Your task to perform on an android device: Open Youtube and go to the subscriptions tab Image 0: 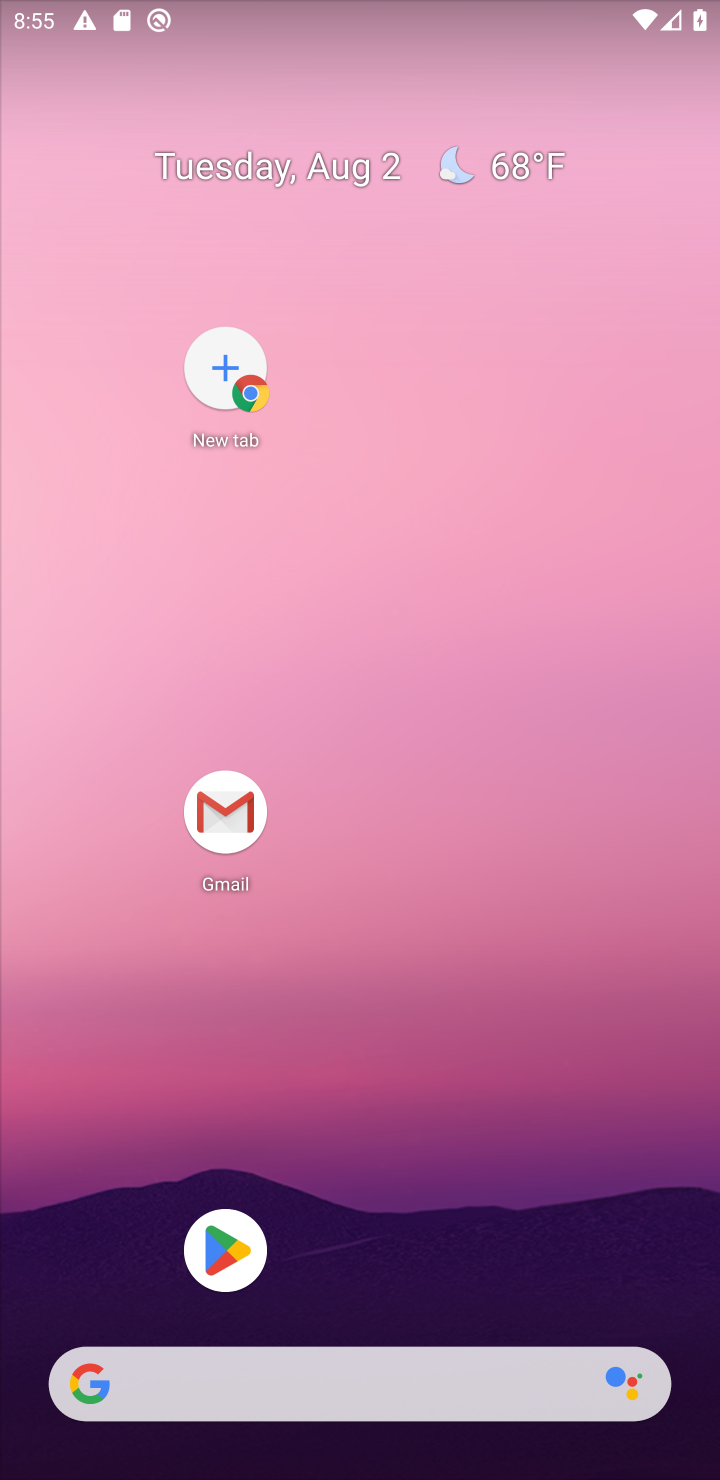
Step 0: drag from (255, 1302) to (286, 570)
Your task to perform on an android device: Open Youtube and go to the subscriptions tab Image 1: 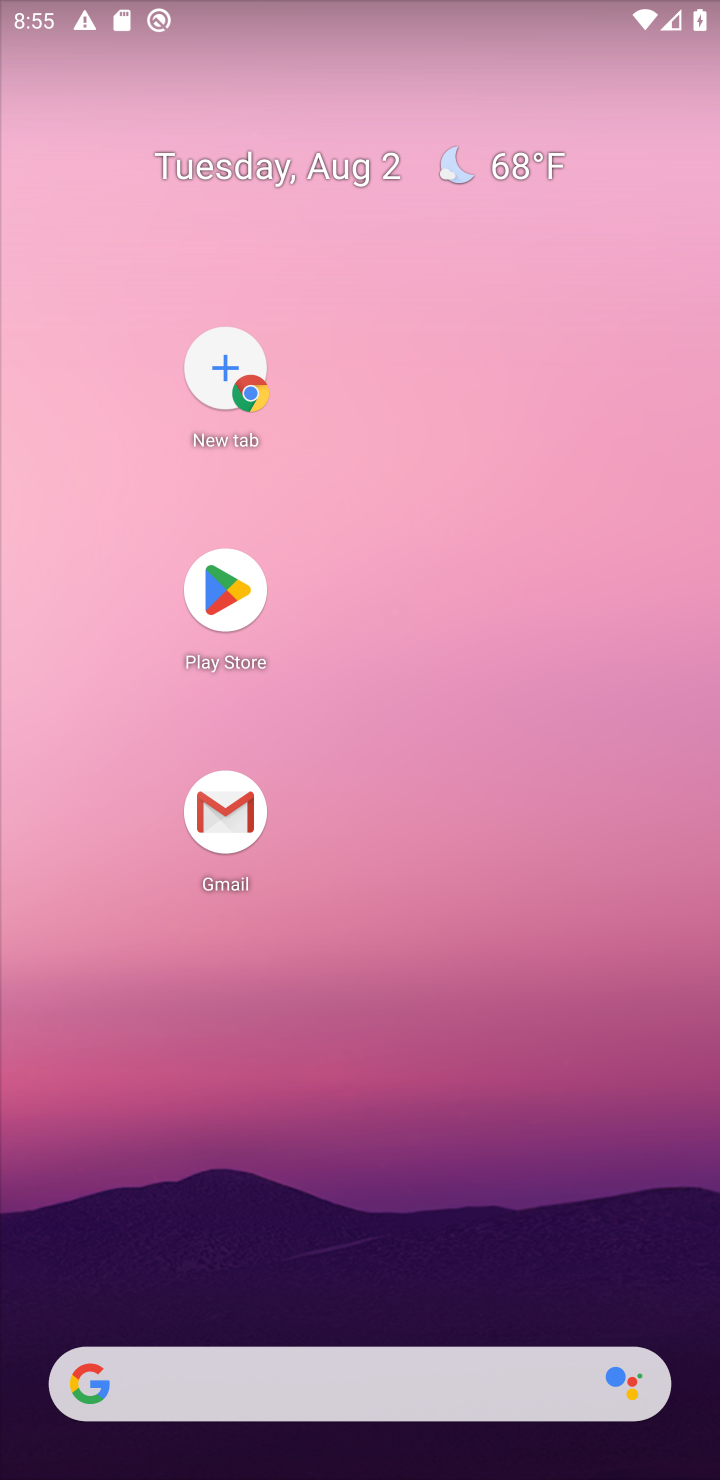
Step 1: drag from (437, 1215) to (291, 334)
Your task to perform on an android device: Open Youtube and go to the subscriptions tab Image 2: 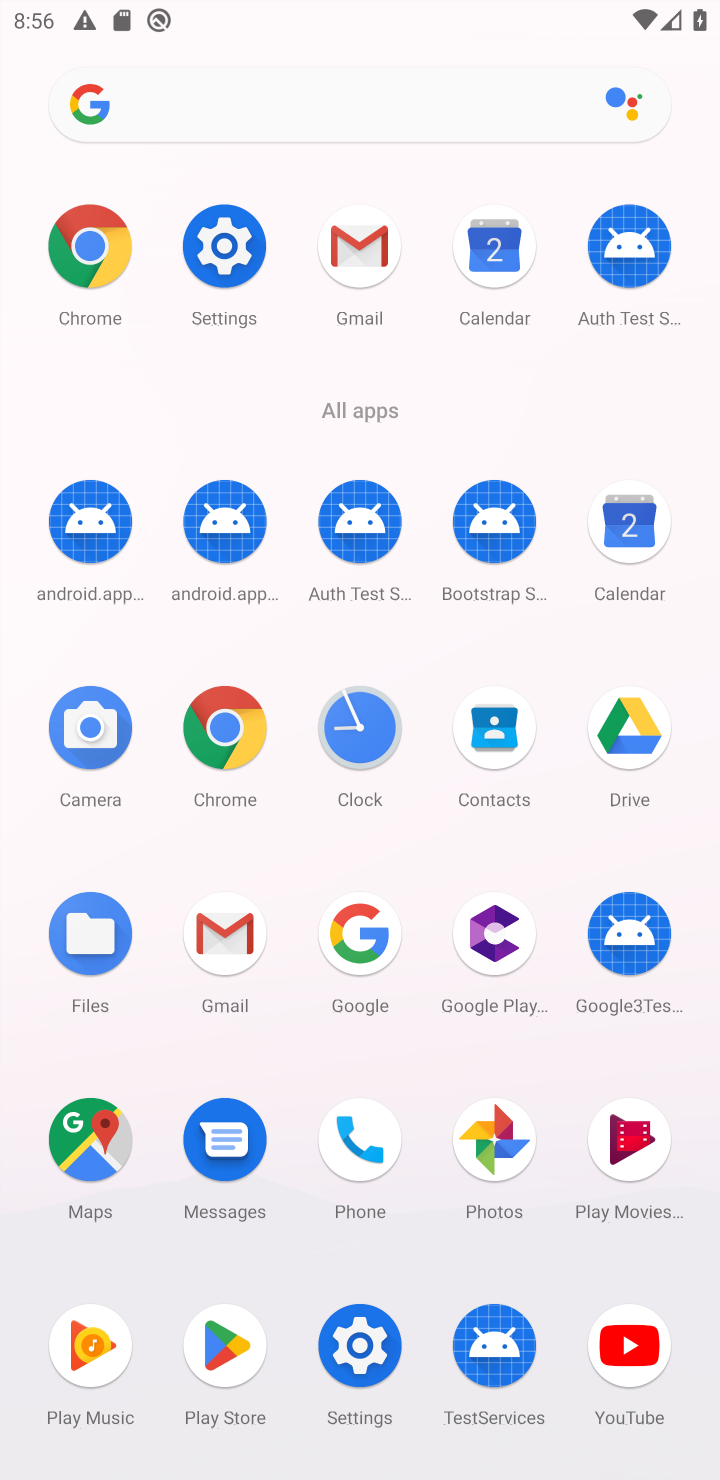
Step 2: click (621, 1352)
Your task to perform on an android device: Open Youtube and go to the subscriptions tab Image 3: 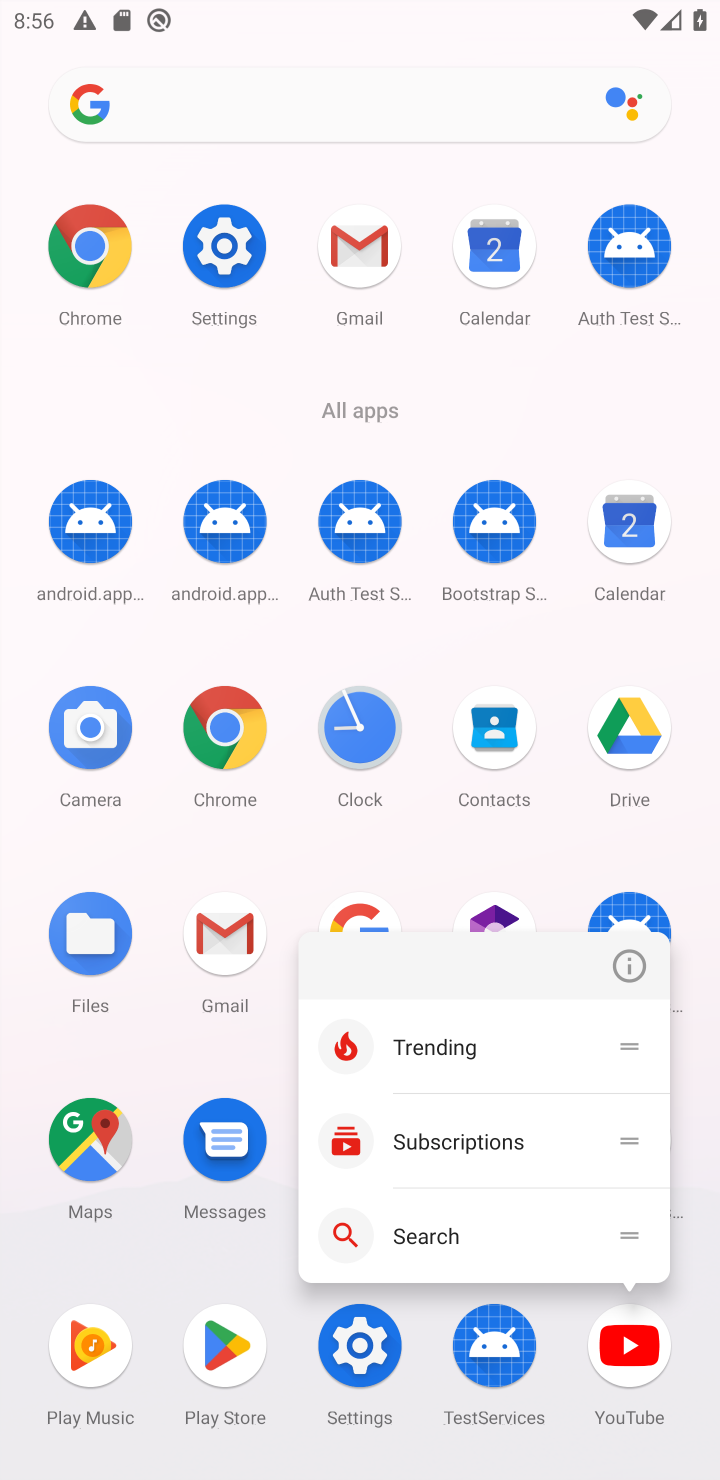
Step 3: click (623, 1345)
Your task to perform on an android device: Open Youtube and go to the subscriptions tab Image 4: 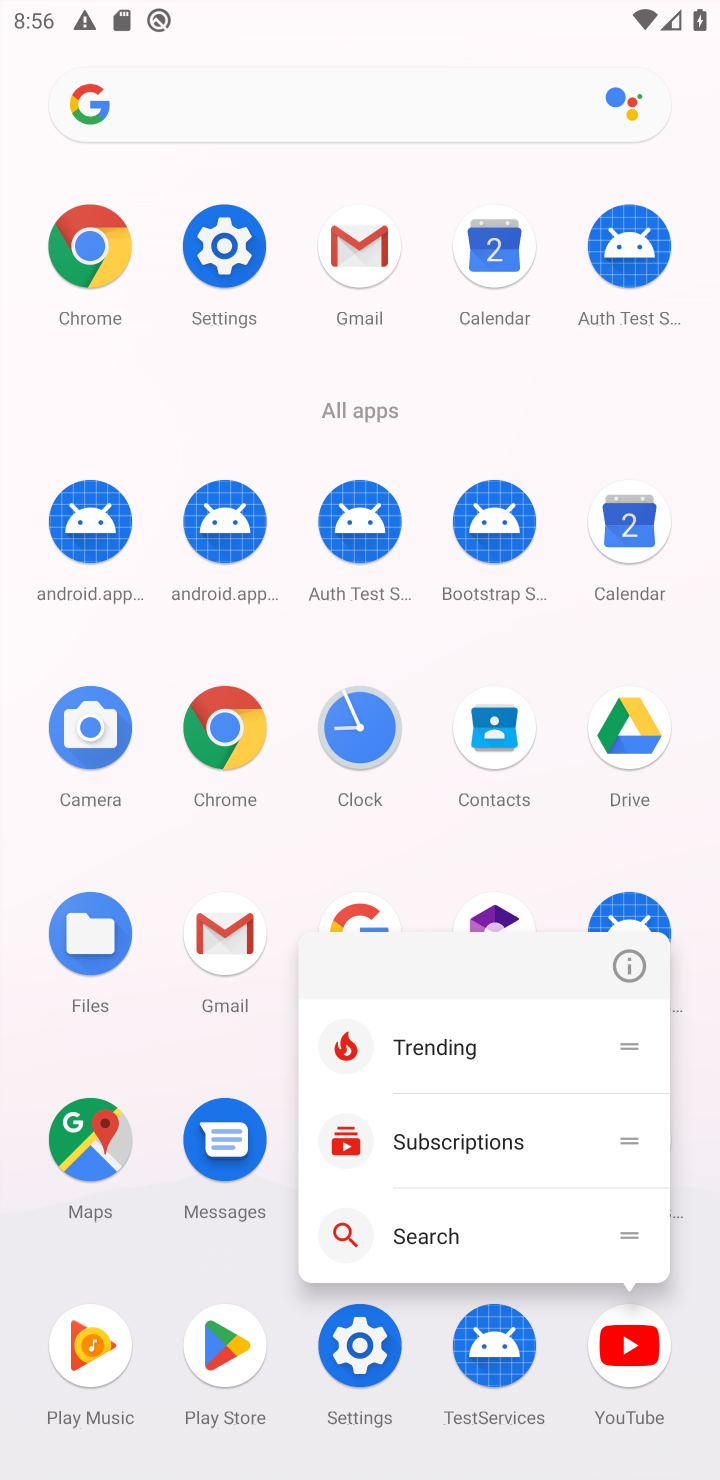
Step 4: click (457, 1141)
Your task to perform on an android device: Open Youtube and go to the subscriptions tab Image 5: 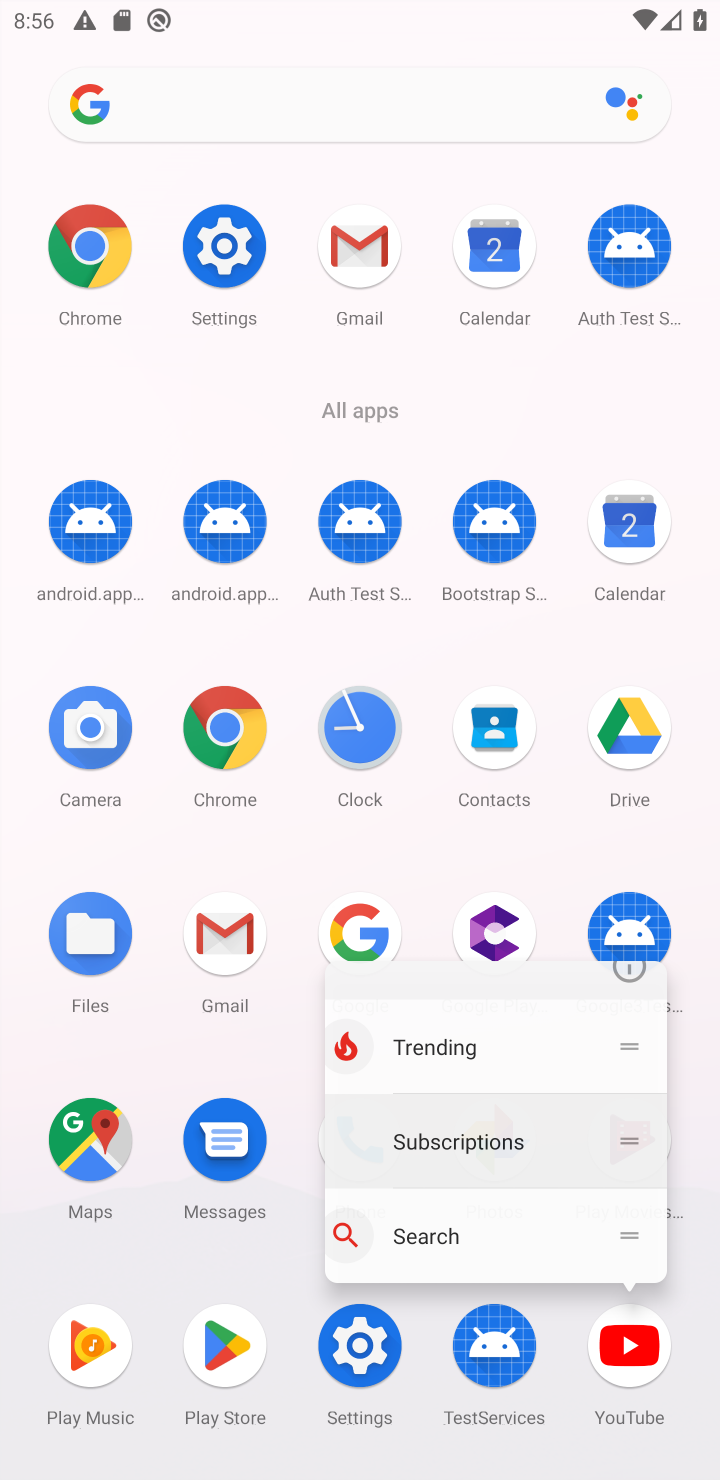
Step 5: click (461, 1141)
Your task to perform on an android device: Open Youtube and go to the subscriptions tab Image 6: 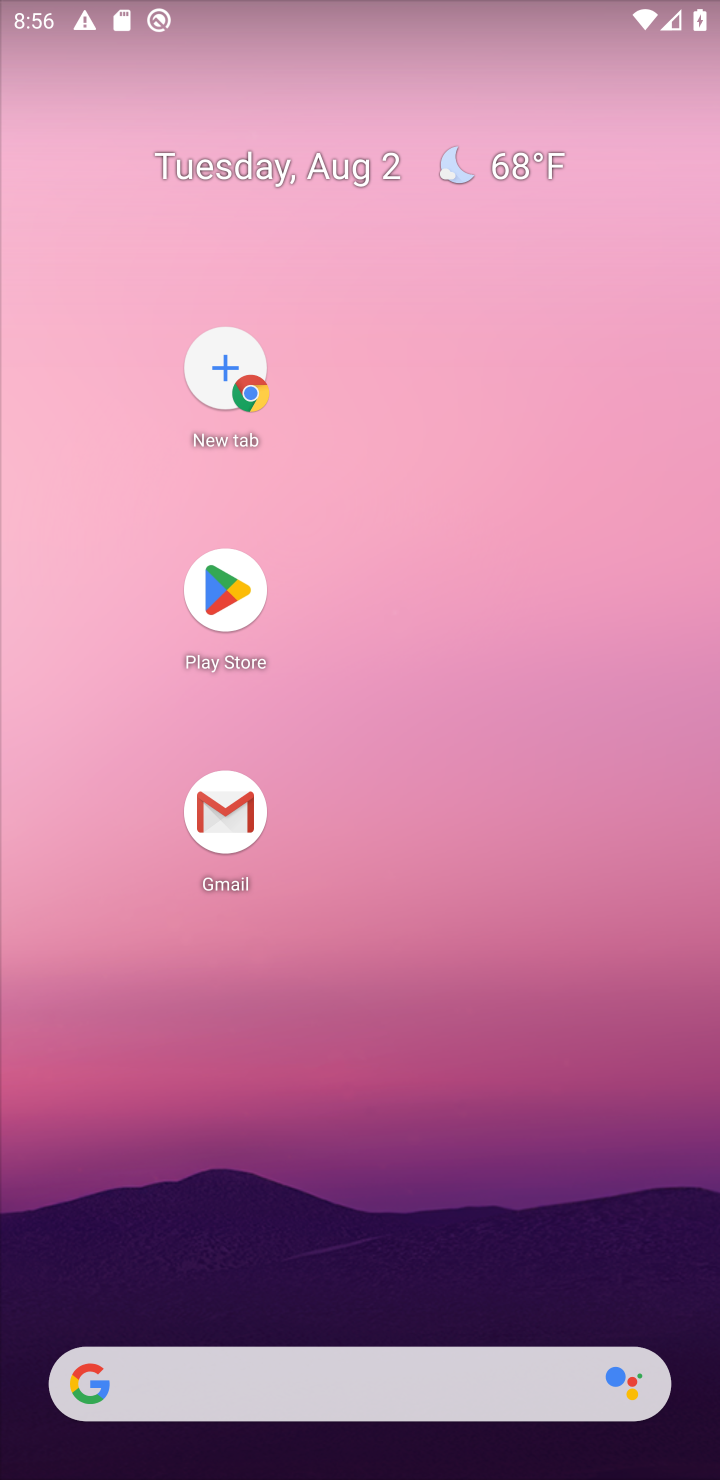
Step 6: task complete